Your task to perform on an android device: turn smart compose on in the gmail app Image 0: 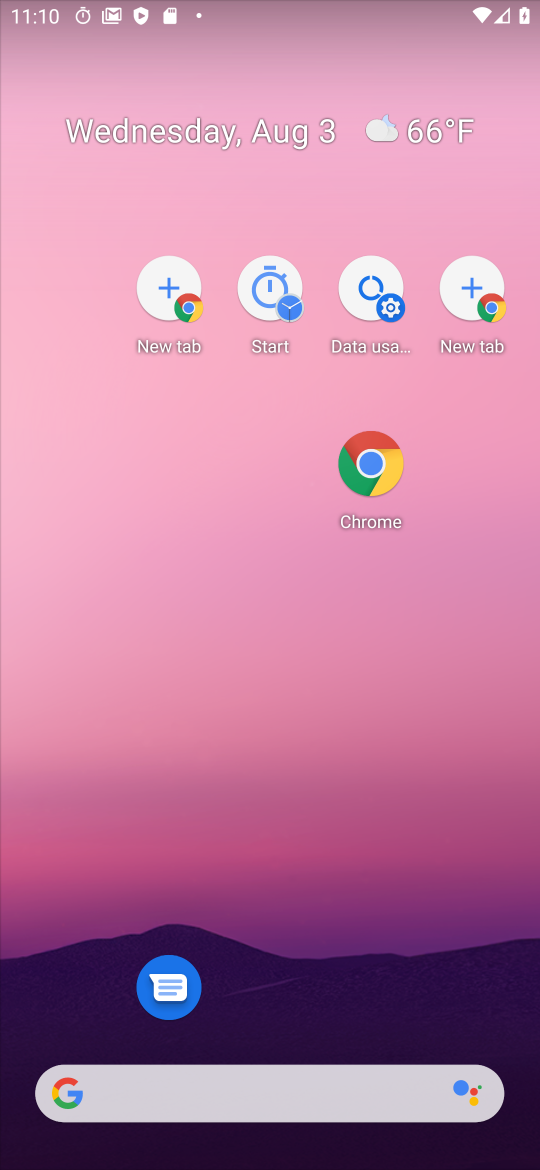
Step 0: drag from (365, 941) to (470, 253)
Your task to perform on an android device: turn smart compose on in the gmail app Image 1: 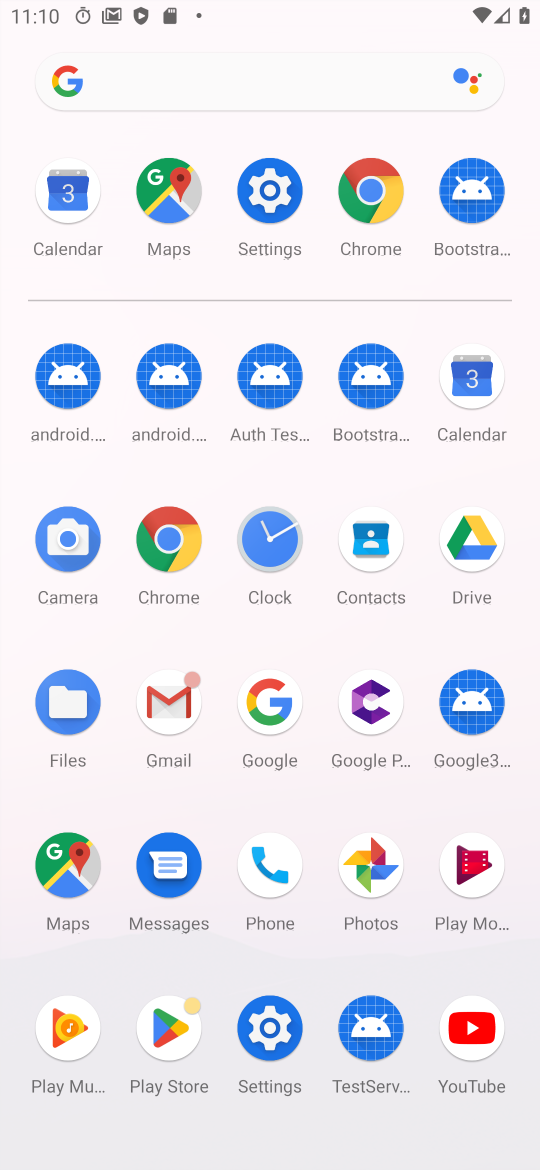
Step 1: click (176, 691)
Your task to perform on an android device: turn smart compose on in the gmail app Image 2: 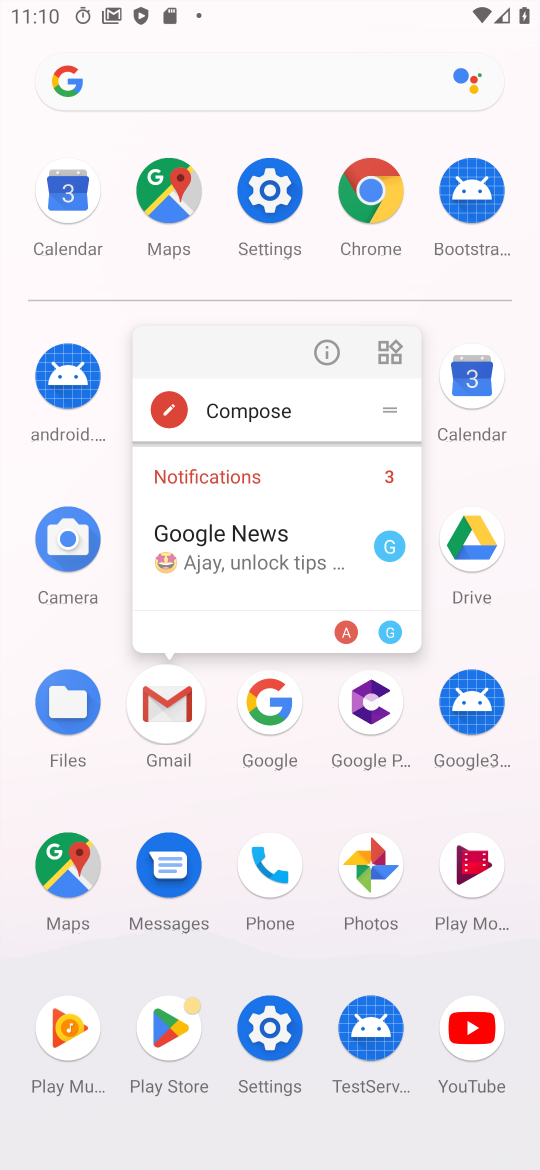
Step 2: click (169, 703)
Your task to perform on an android device: turn smart compose on in the gmail app Image 3: 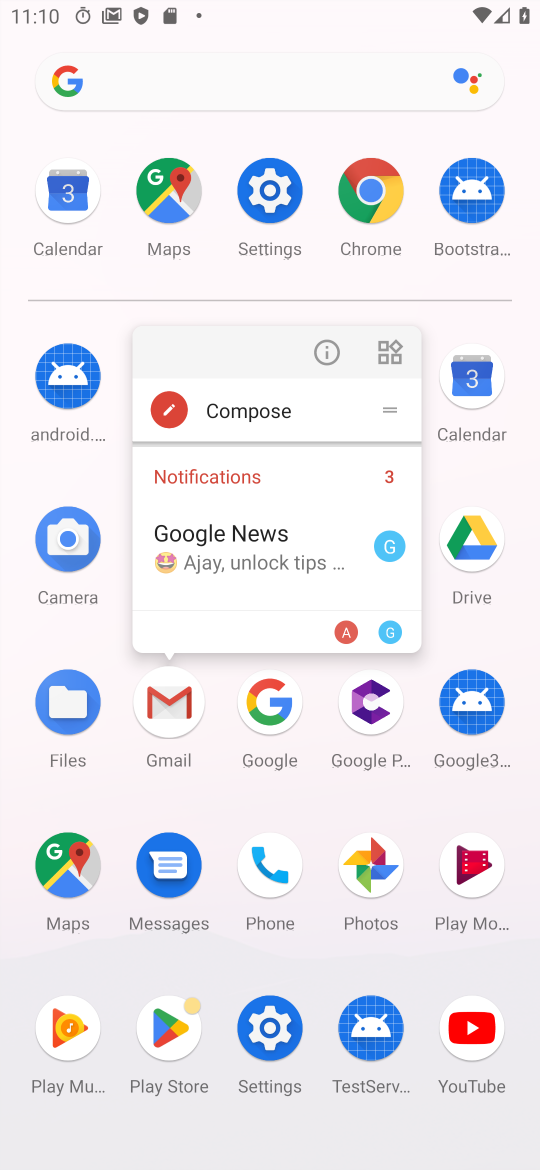
Step 3: click (163, 693)
Your task to perform on an android device: turn smart compose on in the gmail app Image 4: 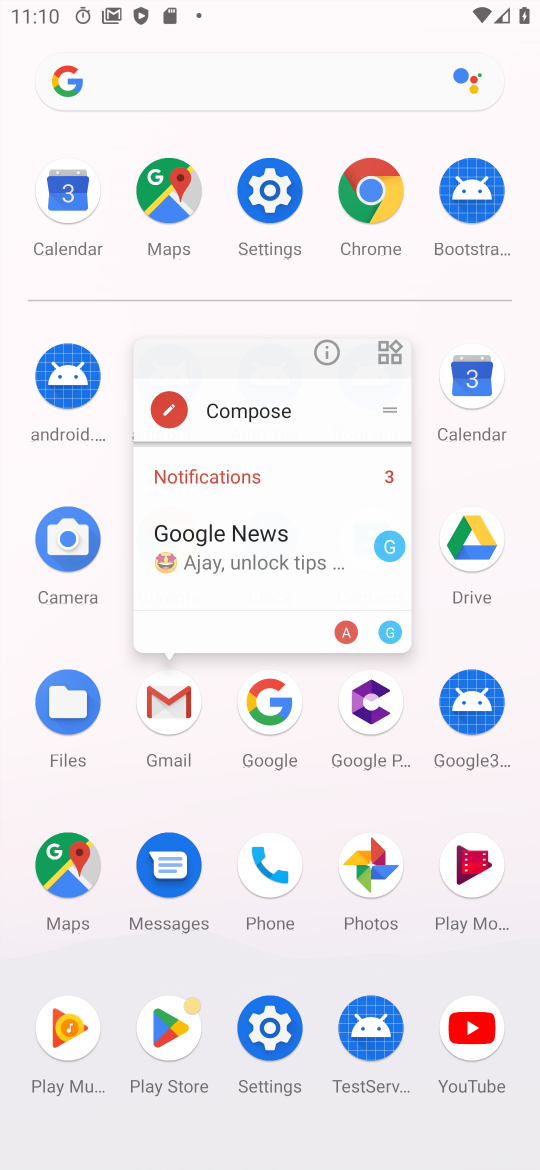
Step 4: click (162, 692)
Your task to perform on an android device: turn smart compose on in the gmail app Image 5: 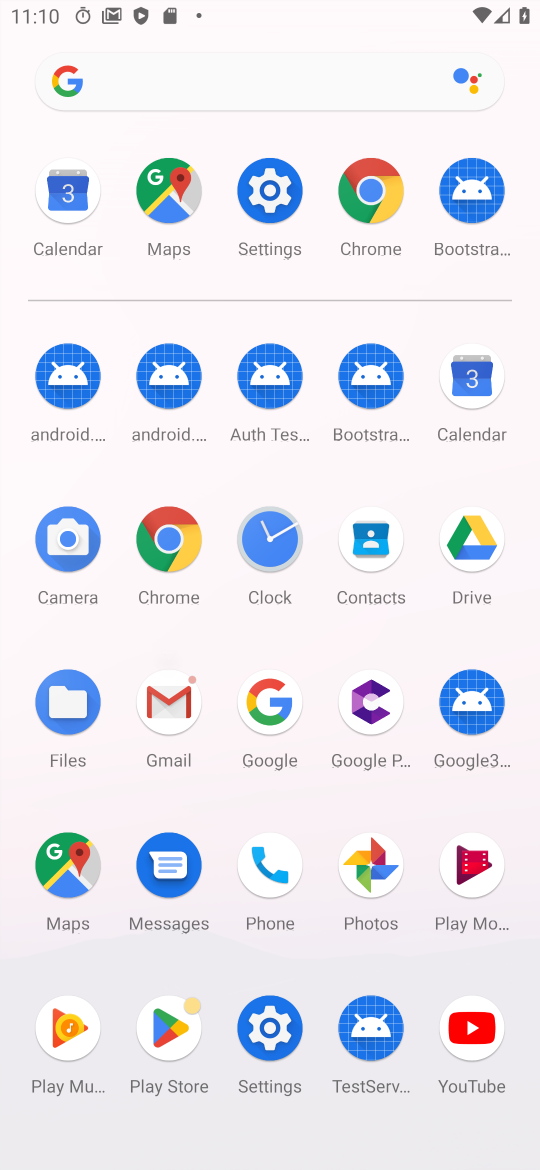
Step 5: click (166, 695)
Your task to perform on an android device: turn smart compose on in the gmail app Image 6: 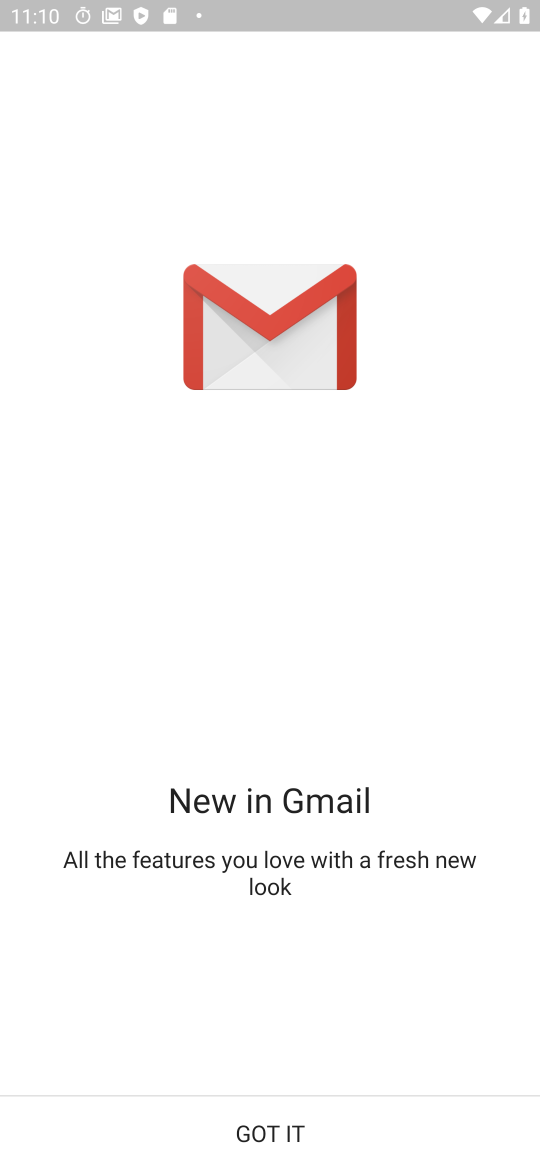
Step 6: click (299, 1124)
Your task to perform on an android device: turn smart compose on in the gmail app Image 7: 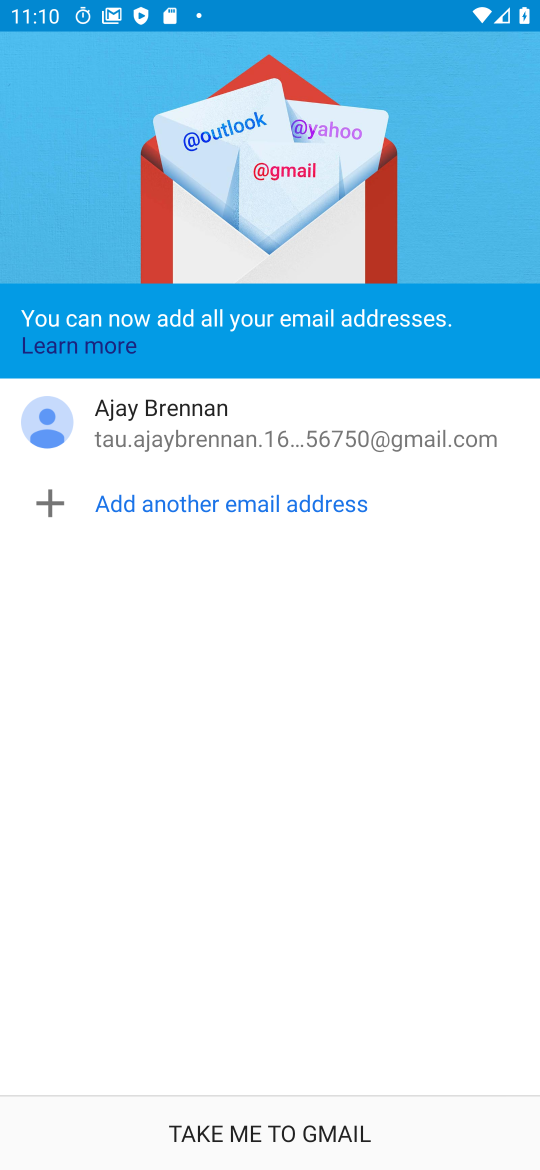
Step 7: click (309, 1143)
Your task to perform on an android device: turn smart compose on in the gmail app Image 8: 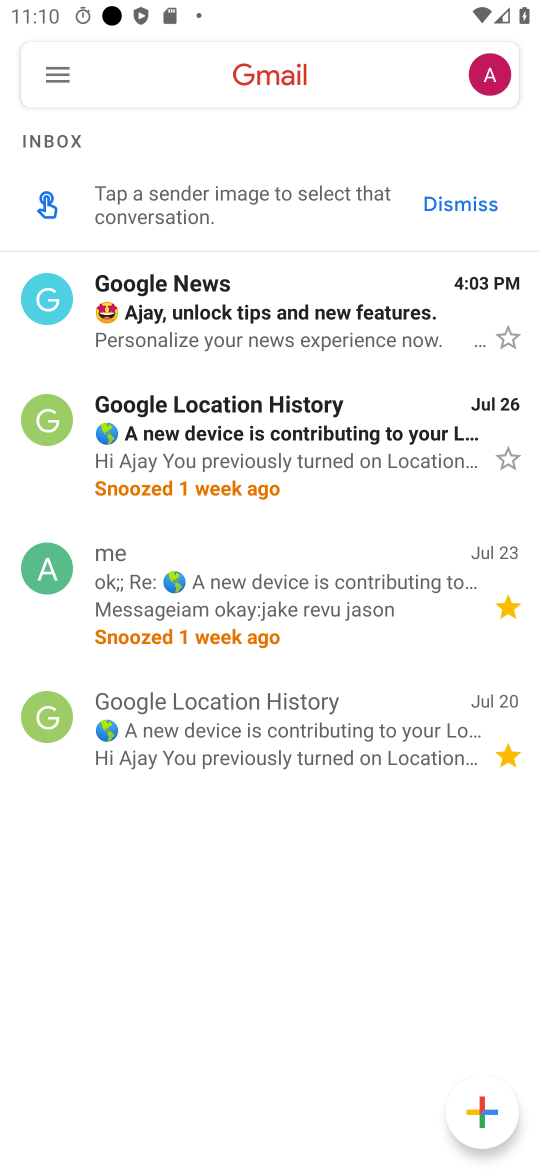
Step 8: click (54, 70)
Your task to perform on an android device: turn smart compose on in the gmail app Image 9: 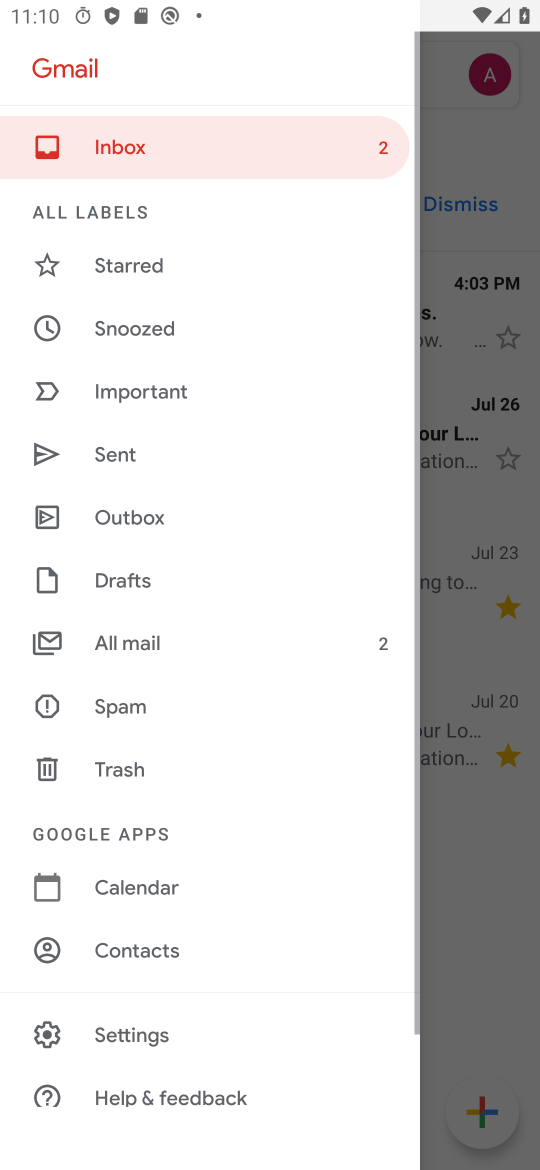
Step 9: click (137, 337)
Your task to perform on an android device: turn smart compose on in the gmail app Image 10: 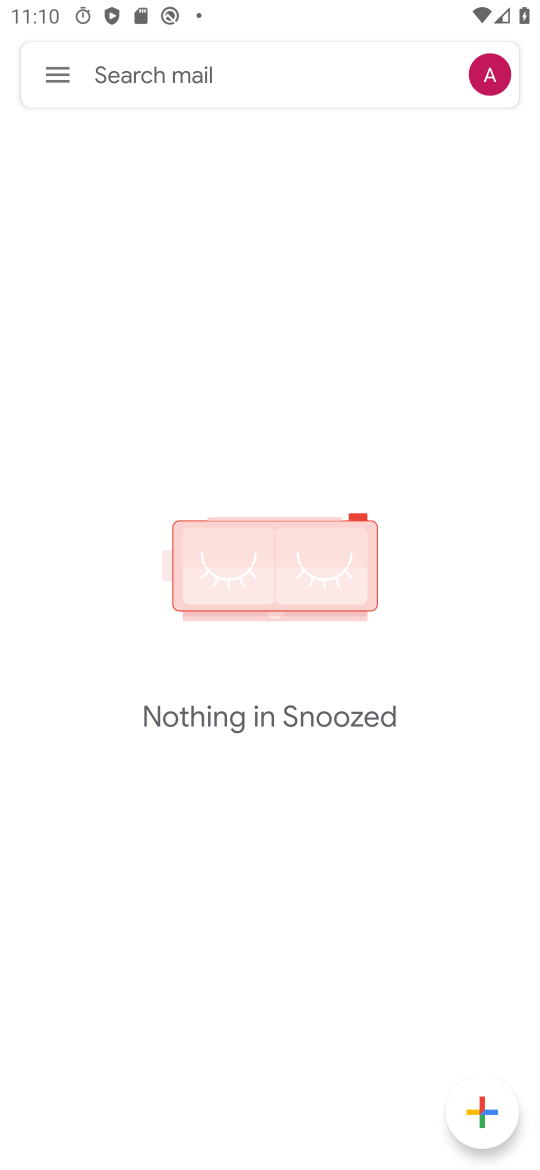
Step 10: click (64, 74)
Your task to perform on an android device: turn smart compose on in the gmail app Image 11: 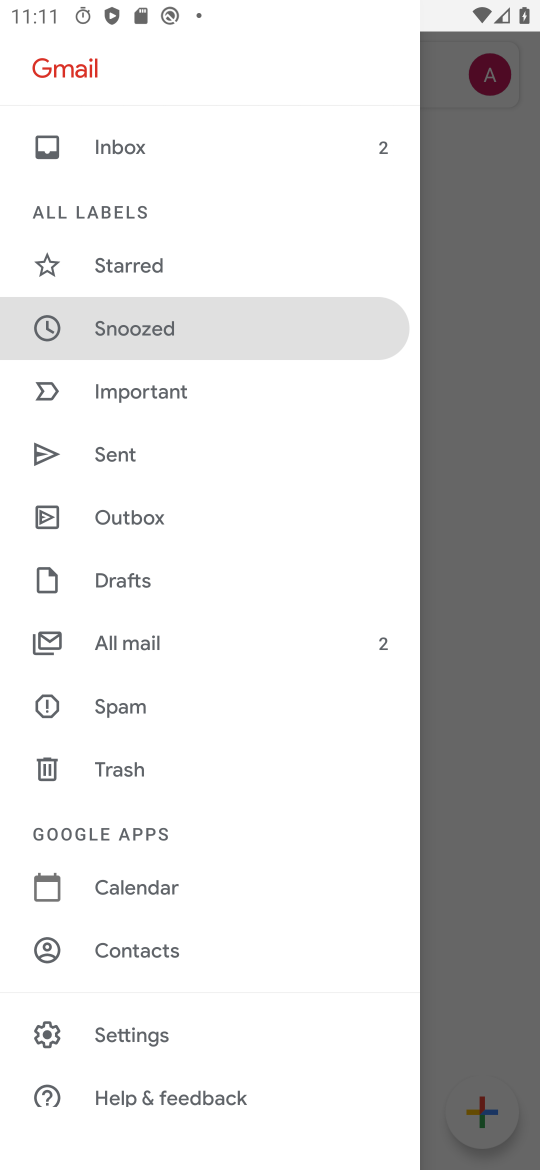
Step 11: click (129, 1031)
Your task to perform on an android device: turn smart compose on in the gmail app Image 12: 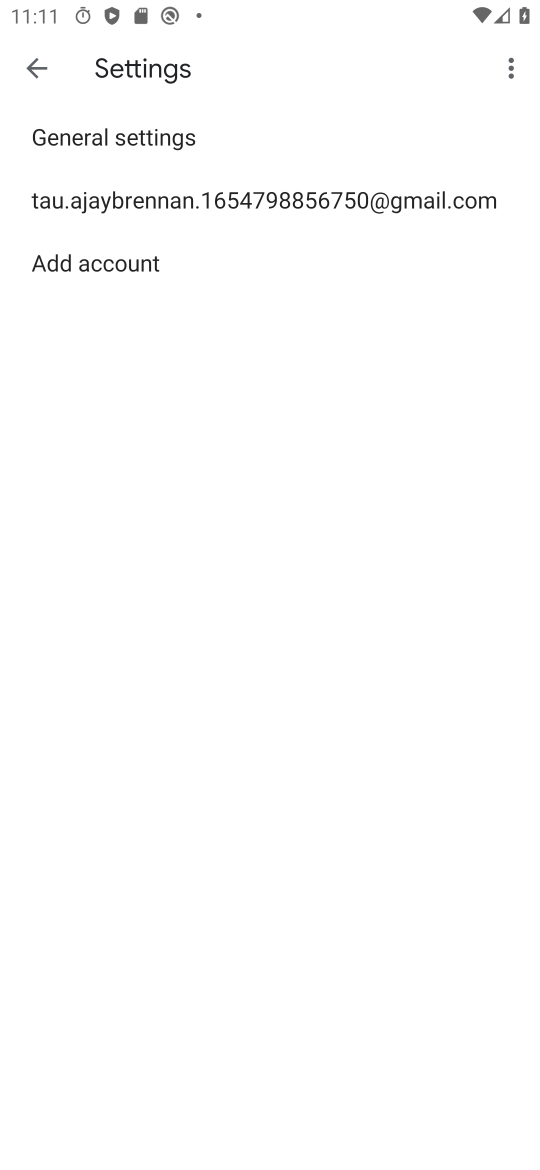
Step 12: click (150, 189)
Your task to perform on an android device: turn smart compose on in the gmail app Image 13: 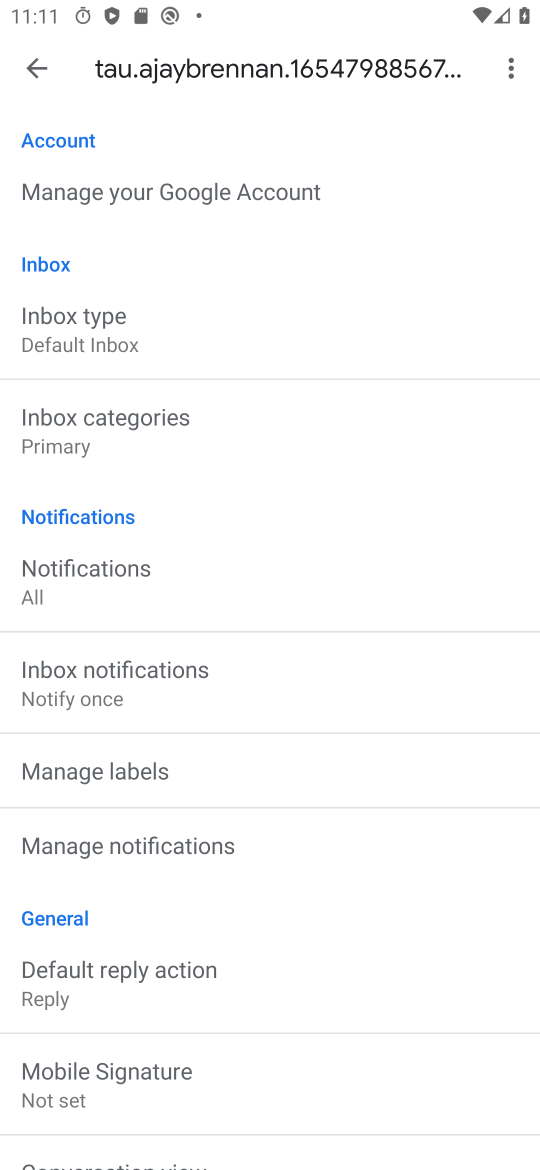
Step 13: task complete